Your task to perform on an android device: set default search engine in the chrome app Image 0: 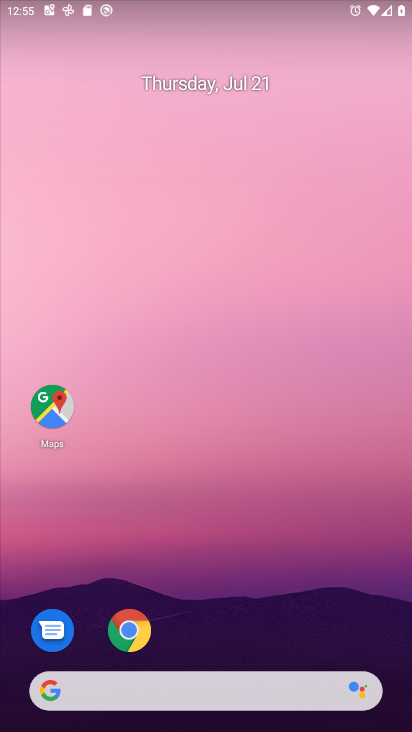
Step 0: drag from (190, 585) to (74, 471)
Your task to perform on an android device: set default search engine in the chrome app Image 1: 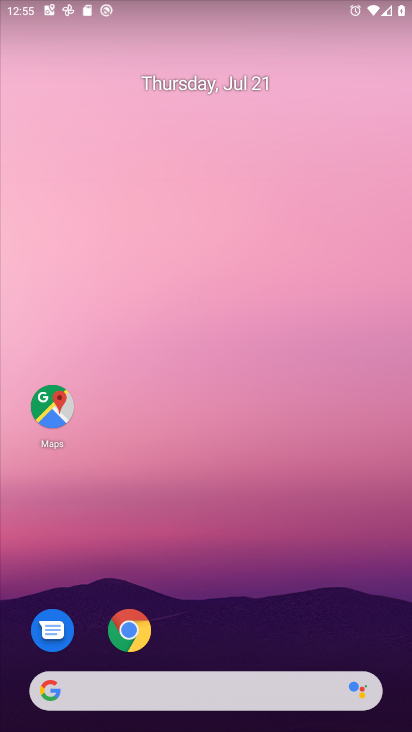
Step 1: click (233, 25)
Your task to perform on an android device: set default search engine in the chrome app Image 2: 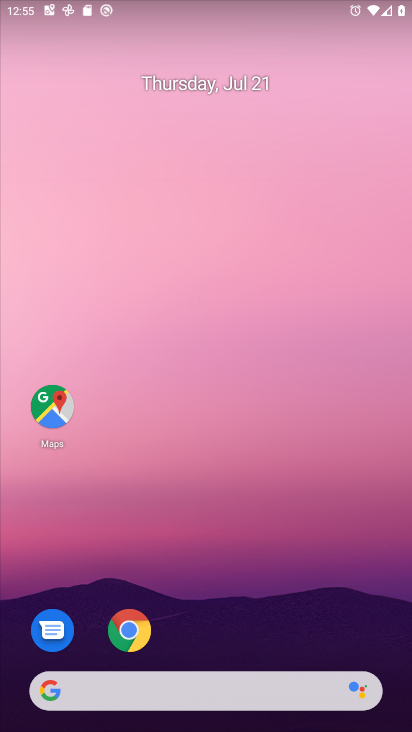
Step 2: click (132, 629)
Your task to perform on an android device: set default search engine in the chrome app Image 3: 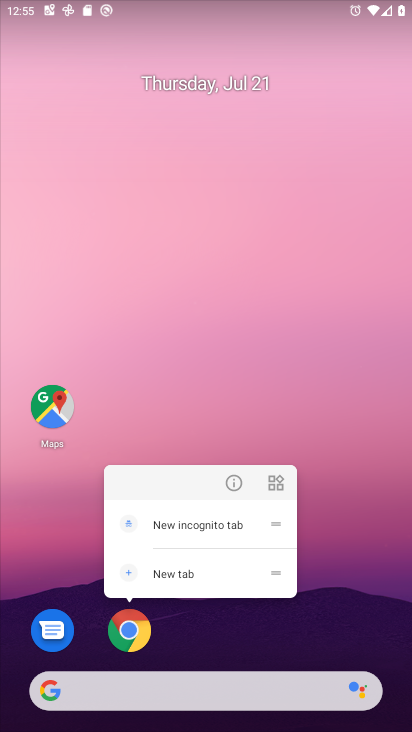
Step 3: click (232, 479)
Your task to perform on an android device: set default search engine in the chrome app Image 4: 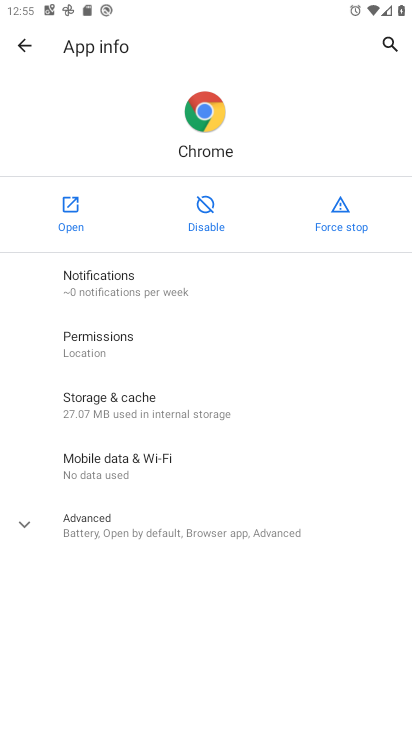
Step 4: click (63, 210)
Your task to perform on an android device: set default search engine in the chrome app Image 5: 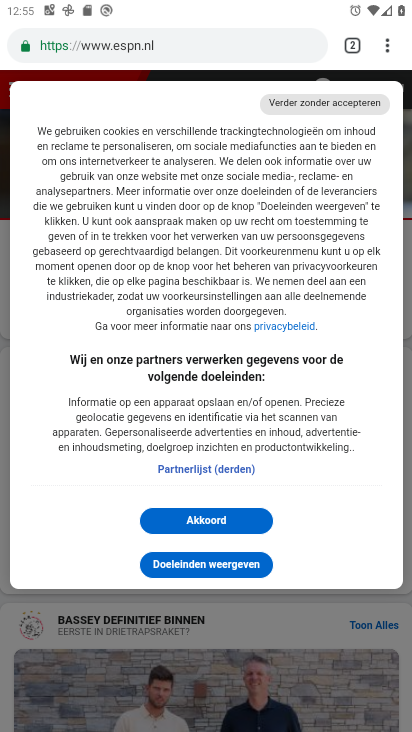
Step 5: drag from (384, 45) to (293, 561)
Your task to perform on an android device: set default search engine in the chrome app Image 6: 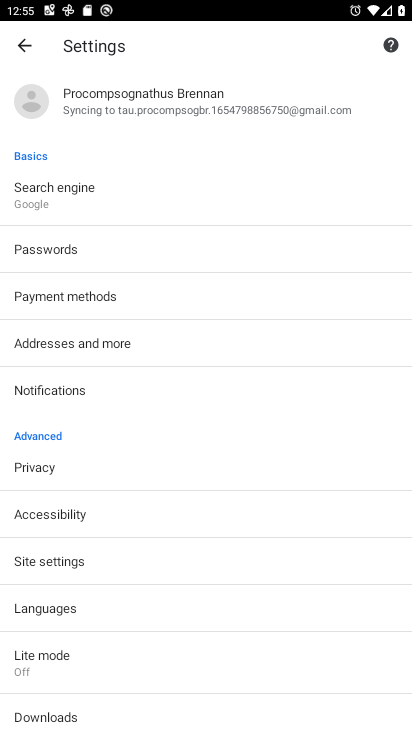
Step 6: click (91, 192)
Your task to perform on an android device: set default search engine in the chrome app Image 7: 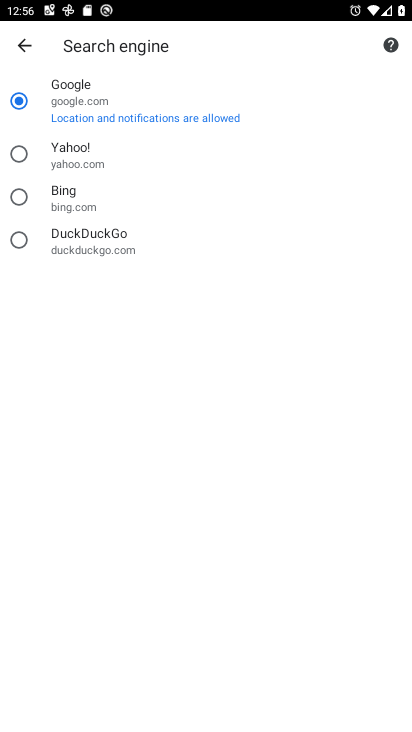
Step 7: task complete